Your task to perform on an android device: move an email to a new category in the gmail app Image 0: 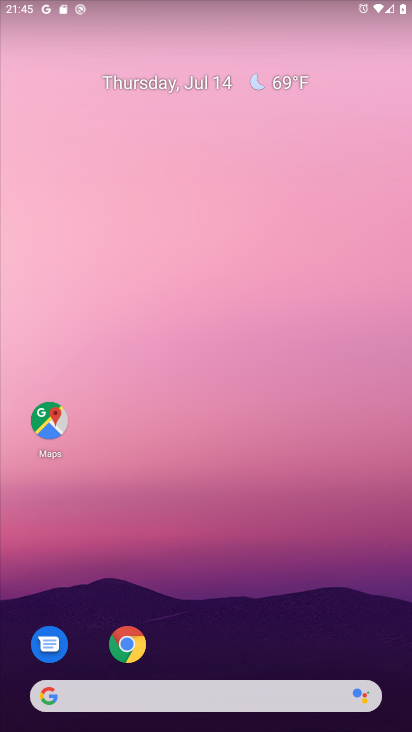
Step 0: drag from (243, 653) to (288, 47)
Your task to perform on an android device: move an email to a new category in the gmail app Image 1: 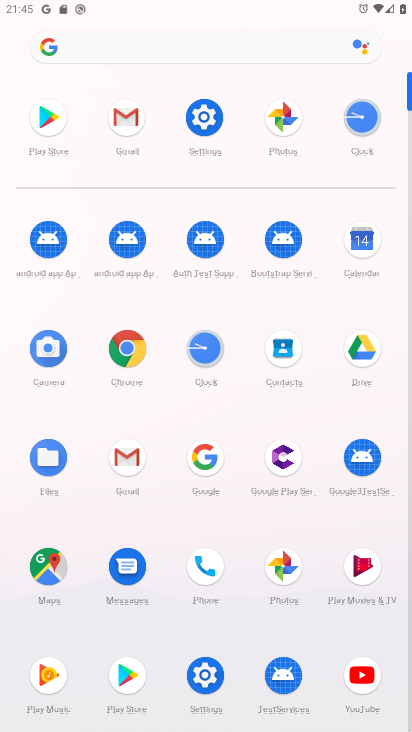
Step 1: click (127, 129)
Your task to perform on an android device: move an email to a new category in the gmail app Image 2: 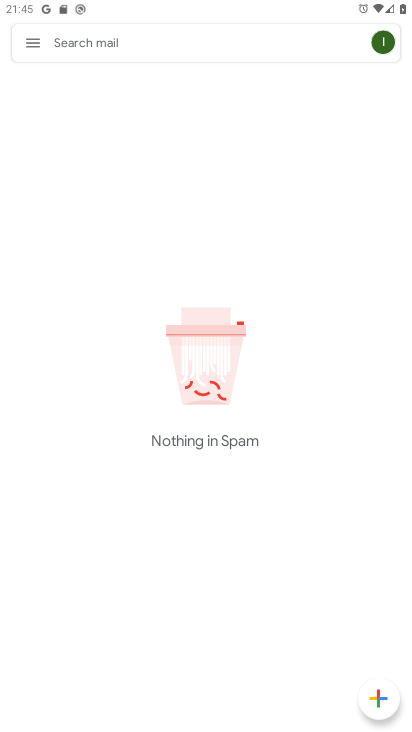
Step 2: click (42, 41)
Your task to perform on an android device: move an email to a new category in the gmail app Image 3: 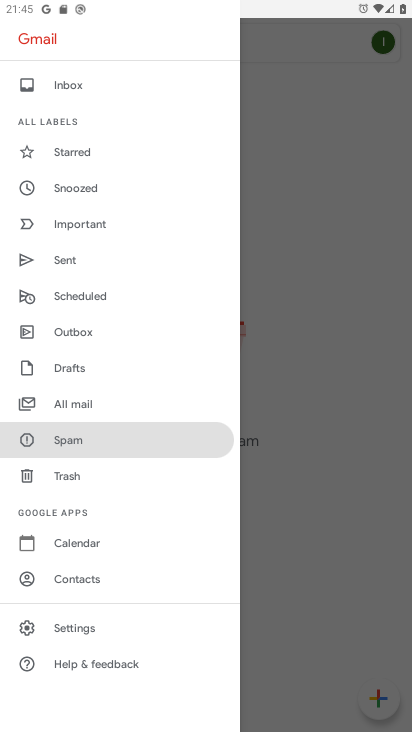
Step 3: click (74, 77)
Your task to perform on an android device: move an email to a new category in the gmail app Image 4: 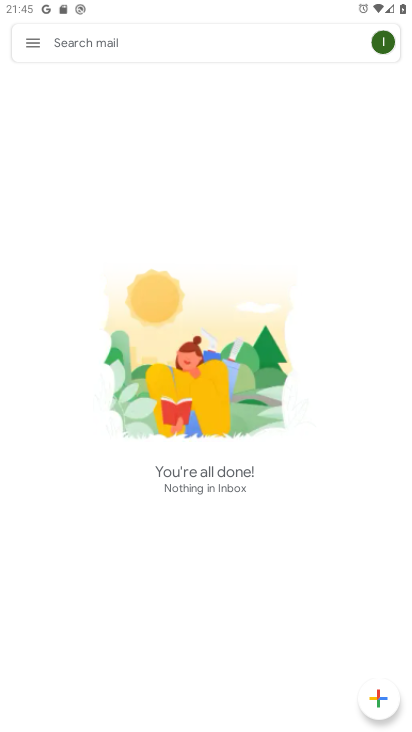
Step 4: task complete